Your task to perform on an android device: open a bookmark in the chrome app Image 0: 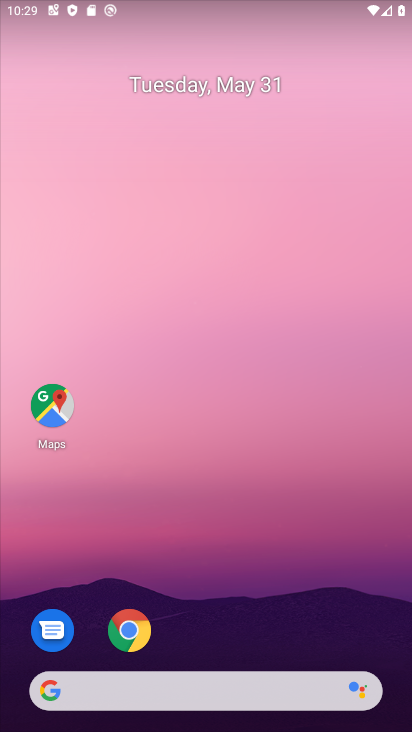
Step 0: click (129, 625)
Your task to perform on an android device: open a bookmark in the chrome app Image 1: 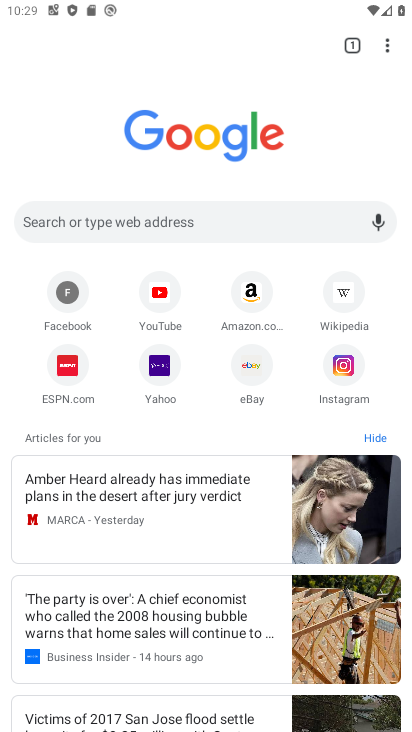
Step 1: click (390, 44)
Your task to perform on an android device: open a bookmark in the chrome app Image 2: 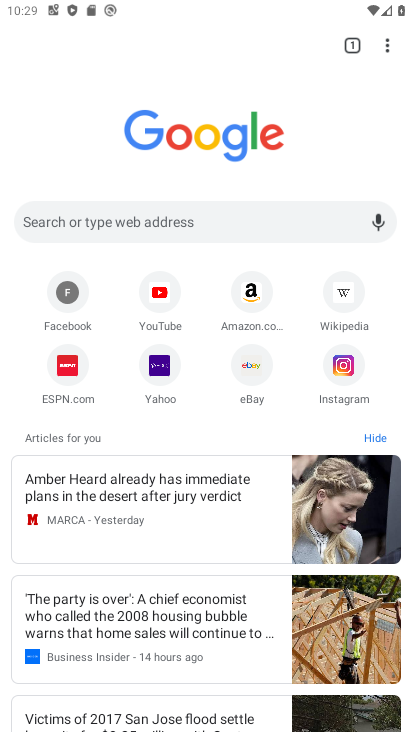
Step 2: task complete